Your task to perform on an android device: toggle location history Image 0: 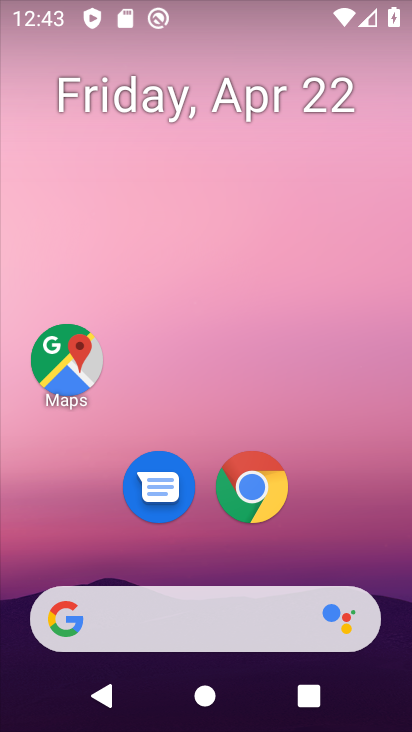
Step 0: drag from (199, 552) to (145, 116)
Your task to perform on an android device: toggle location history Image 1: 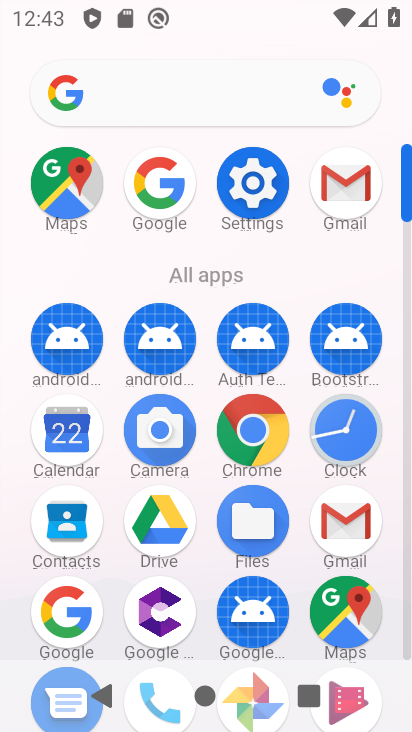
Step 1: click (241, 200)
Your task to perform on an android device: toggle location history Image 2: 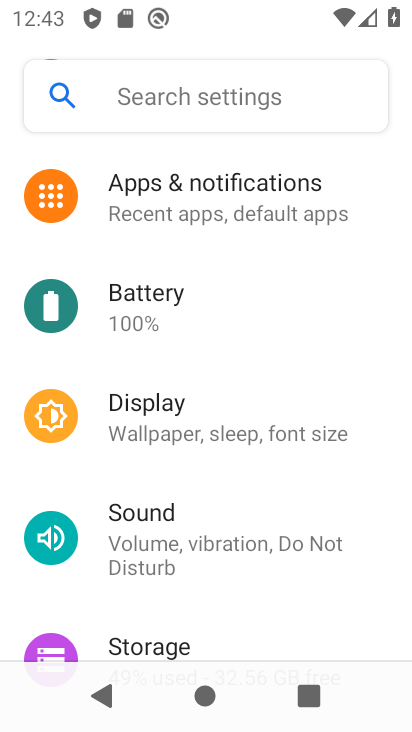
Step 2: drag from (219, 532) to (241, 252)
Your task to perform on an android device: toggle location history Image 3: 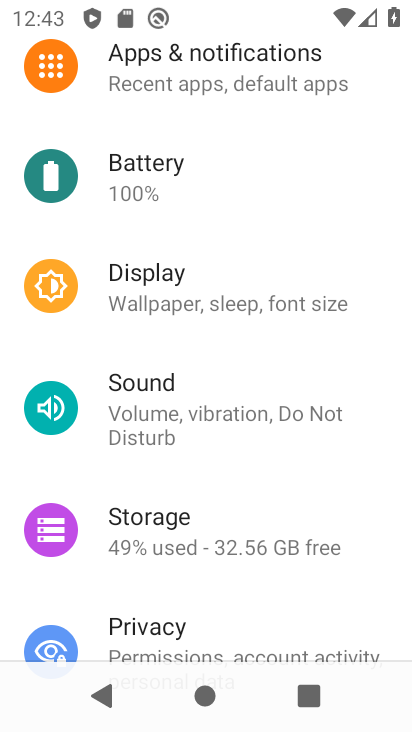
Step 3: drag from (237, 524) to (248, 305)
Your task to perform on an android device: toggle location history Image 4: 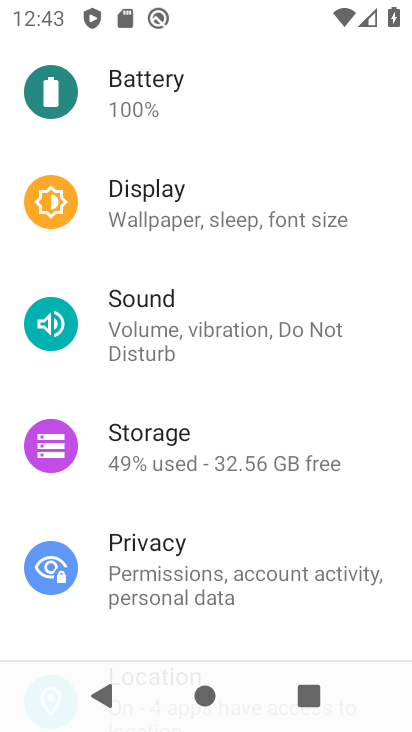
Step 4: drag from (243, 539) to (234, 279)
Your task to perform on an android device: toggle location history Image 5: 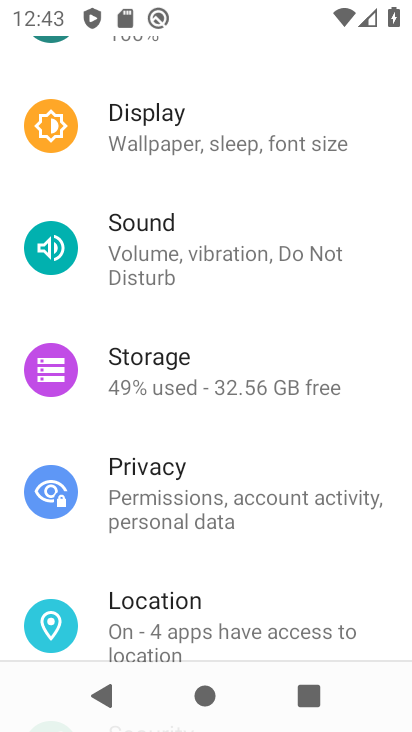
Step 5: click (224, 601)
Your task to perform on an android device: toggle location history Image 6: 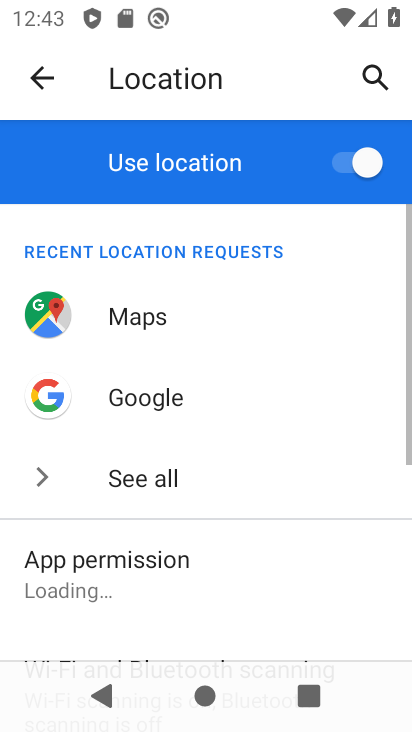
Step 6: drag from (240, 575) to (208, 211)
Your task to perform on an android device: toggle location history Image 7: 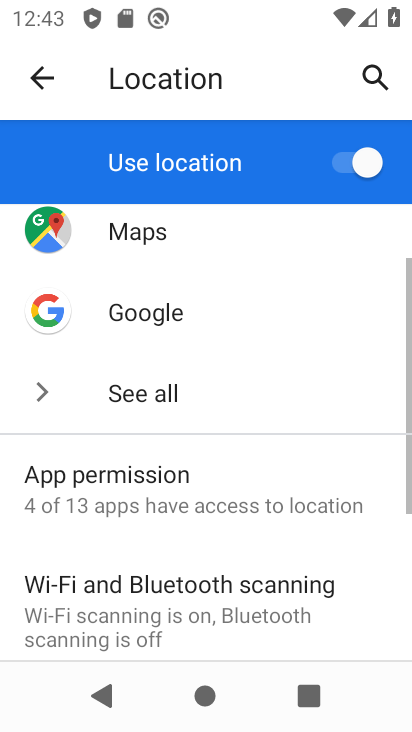
Step 7: drag from (260, 487) to (265, 275)
Your task to perform on an android device: toggle location history Image 8: 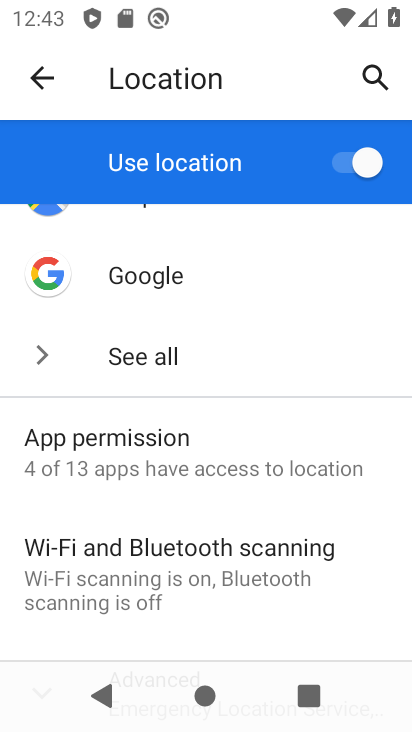
Step 8: drag from (257, 597) to (266, 350)
Your task to perform on an android device: toggle location history Image 9: 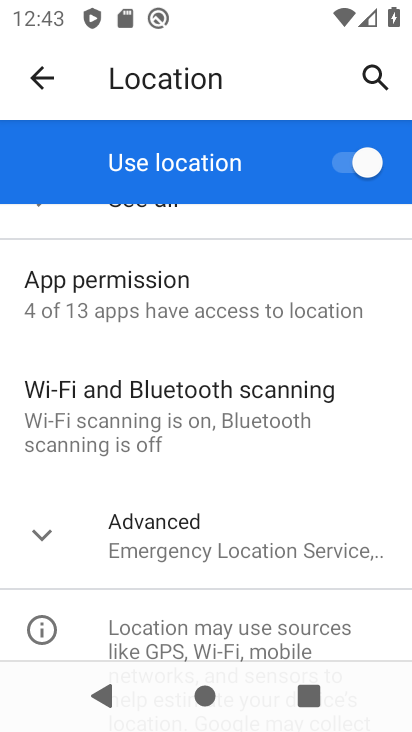
Step 9: click (170, 534)
Your task to perform on an android device: toggle location history Image 10: 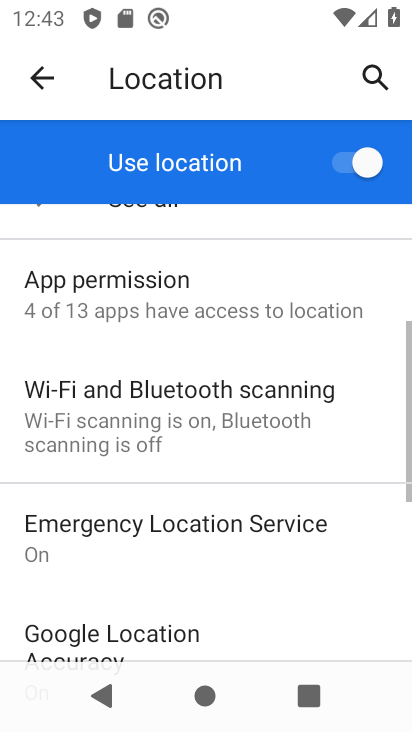
Step 10: drag from (241, 619) to (280, 392)
Your task to perform on an android device: toggle location history Image 11: 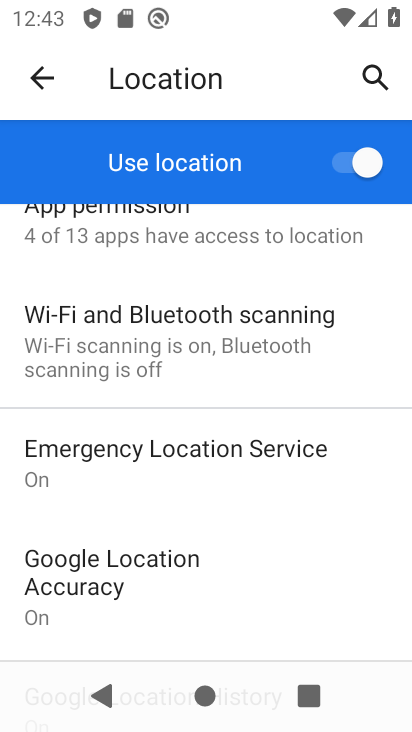
Step 11: drag from (263, 552) to (296, 375)
Your task to perform on an android device: toggle location history Image 12: 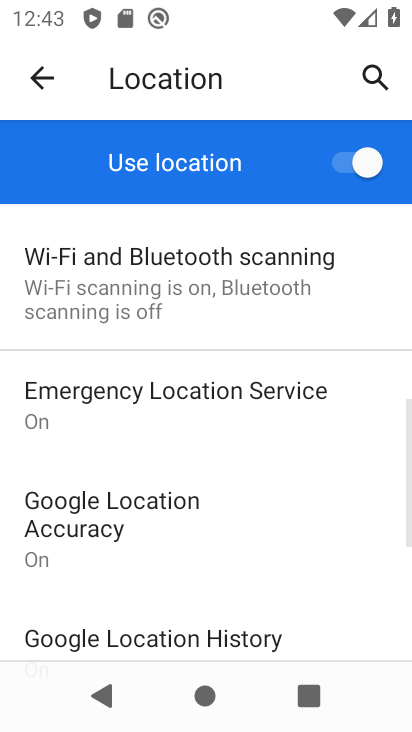
Step 12: drag from (232, 591) to (261, 386)
Your task to perform on an android device: toggle location history Image 13: 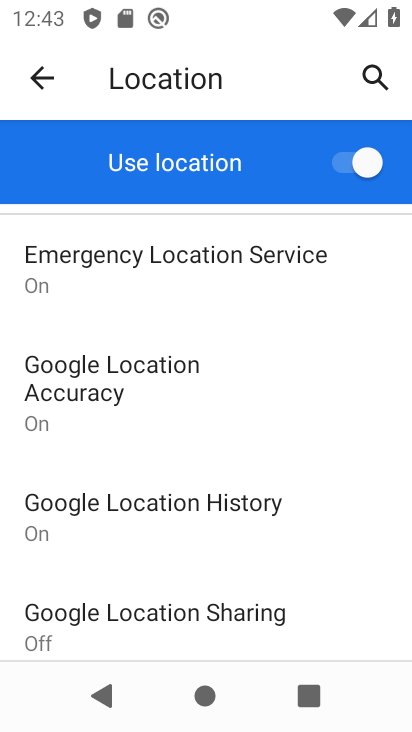
Step 13: click (226, 540)
Your task to perform on an android device: toggle location history Image 14: 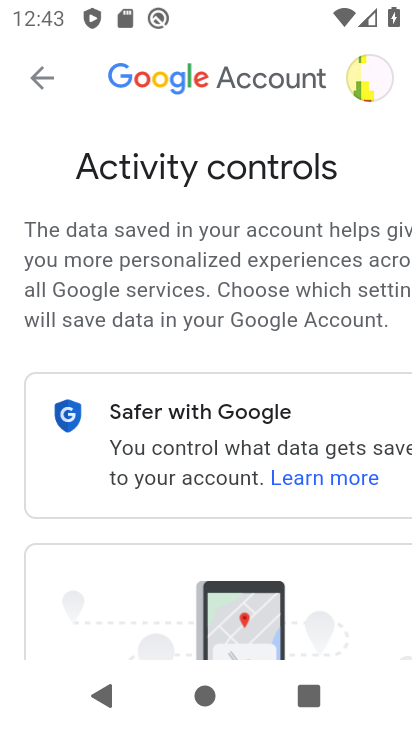
Step 14: drag from (312, 384) to (309, 221)
Your task to perform on an android device: toggle location history Image 15: 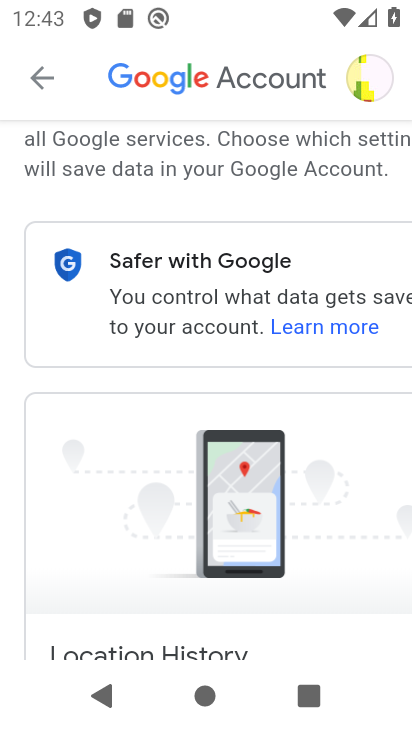
Step 15: drag from (302, 573) to (311, 259)
Your task to perform on an android device: toggle location history Image 16: 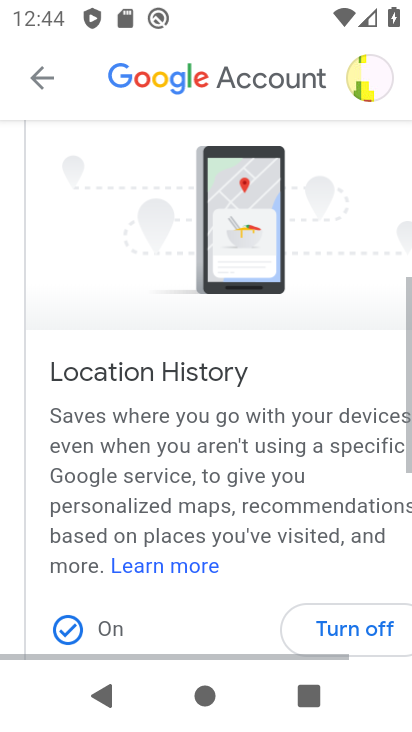
Step 16: drag from (254, 322) to (297, 329)
Your task to perform on an android device: toggle location history Image 17: 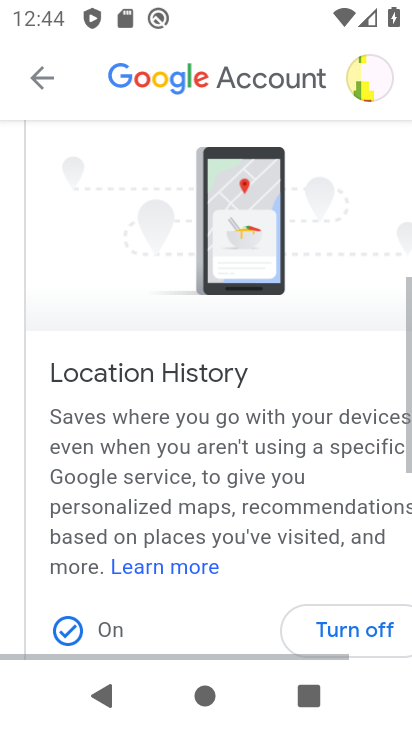
Step 17: drag from (280, 587) to (286, 431)
Your task to perform on an android device: toggle location history Image 18: 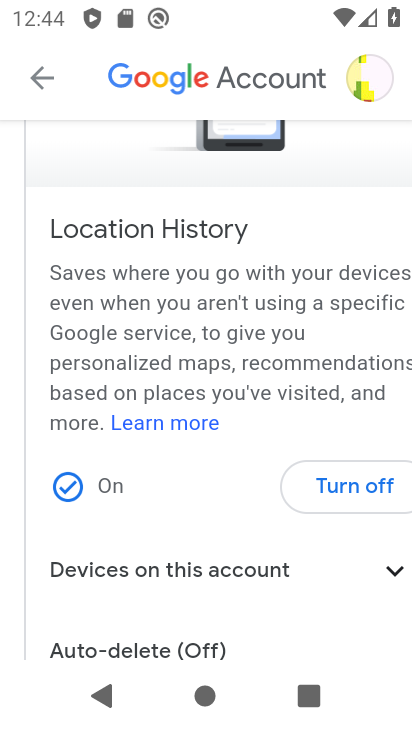
Step 18: click (376, 479)
Your task to perform on an android device: toggle location history Image 19: 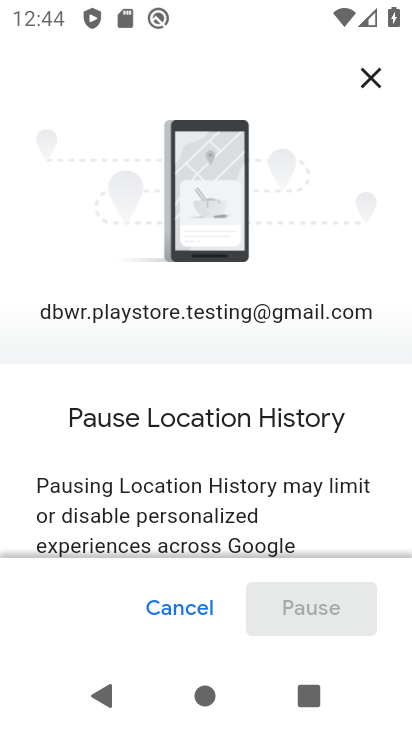
Step 19: drag from (320, 513) to (294, 170)
Your task to perform on an android device: toggle location history Image 20: 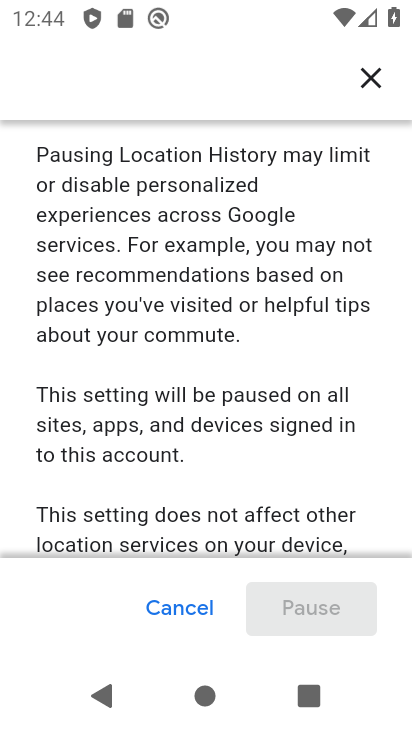
Step 20: drag from (302, 441) to (303, 164)
Your task to perform on an android device: toggle location history Image 21: 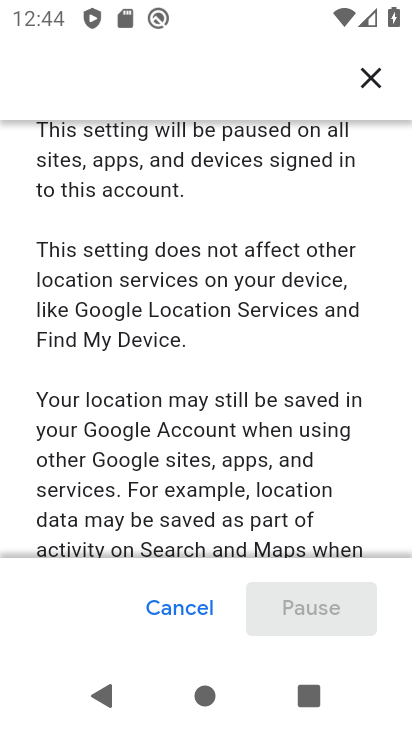
Step 21: drag from (305, 436) to (309, 175)
Your task to perform on an android device: toggle location history Image 22: 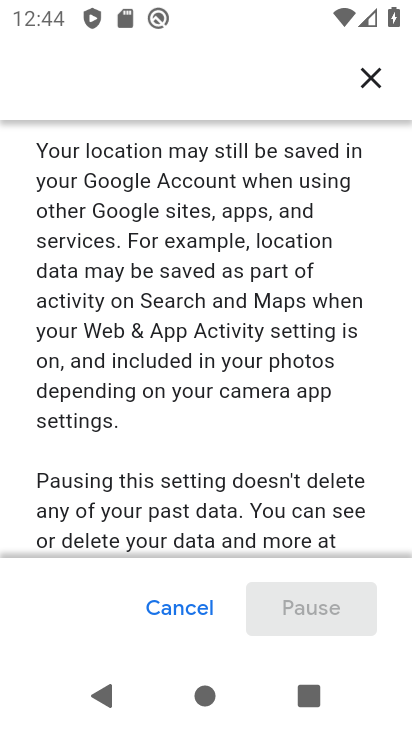
Step 22: drag from (333, 482) to (317, 185)
Your task to perform on an android device: toggle location history Image 23: 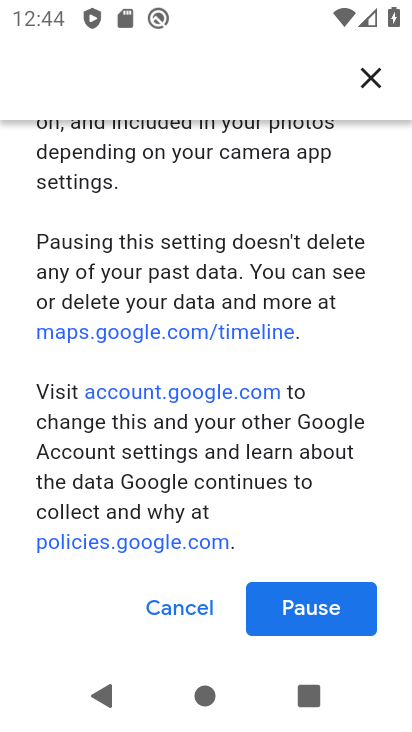
Step 23: drag from (311, 441) to (285, 239)
Your task to perform on an android device: toggle location history Image 24: 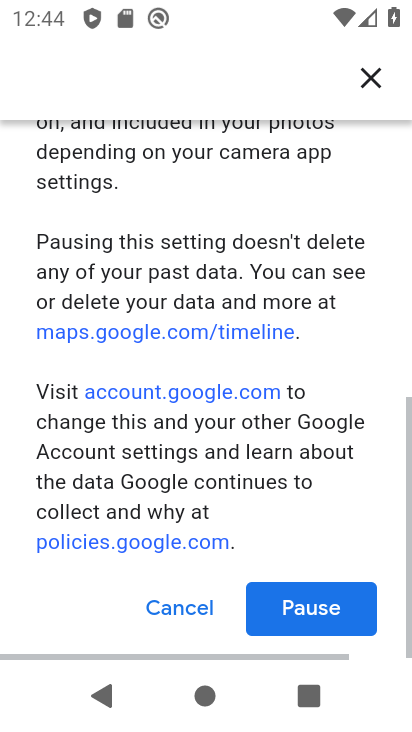
Step 24: drag from (307, 435) to (294, 236)
Your task to perform on an android device: toggle location history Image 25: 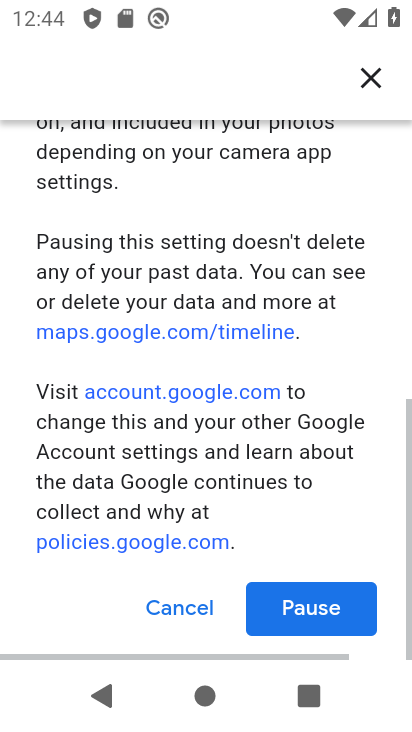
Step 25: click (323, 594)
Your task to perform on an android device: toggle location history Image 26: 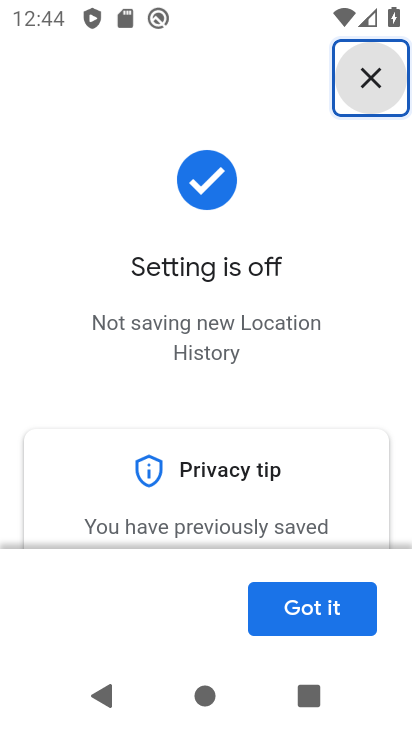
Step 26: task complete